Your task to perform on an android device: move a message to another label in the gmail app Image 0: 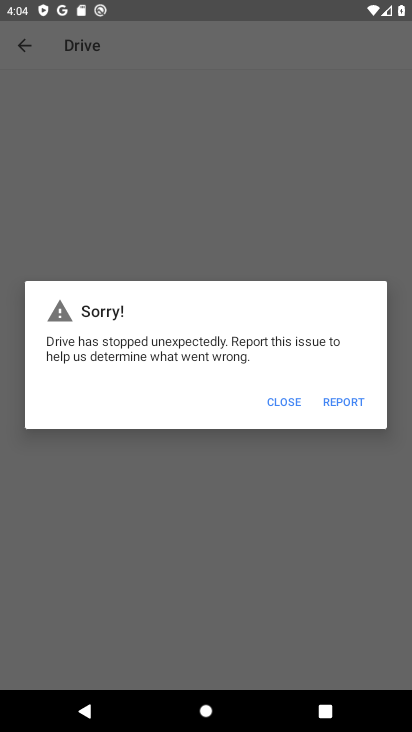
Step 0: press home button
Your task to perform on an android device: move a message to another label in the gmail app Image 1: 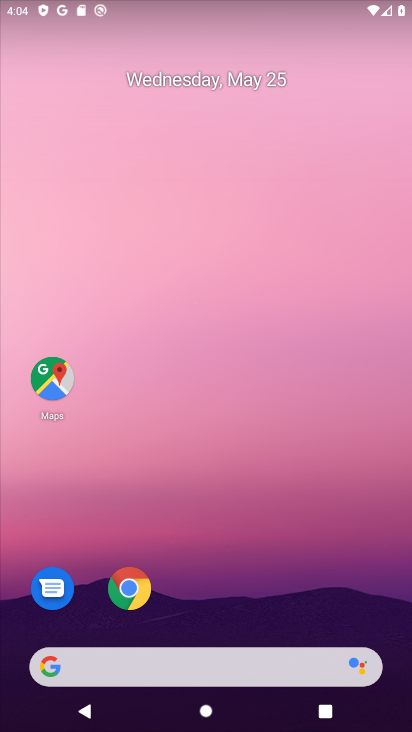
Step 1: drag from (210, 611) to (195, 20)
Your task to perform on an android device: move a message to another label in the gmail app Image 2: 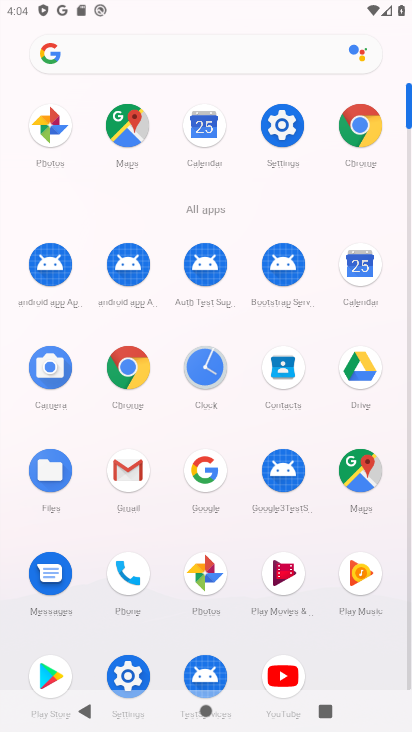
Step 2: click (120, 474)
Your task to perform on an android device: move a message to another label in the gmail app Image 3: 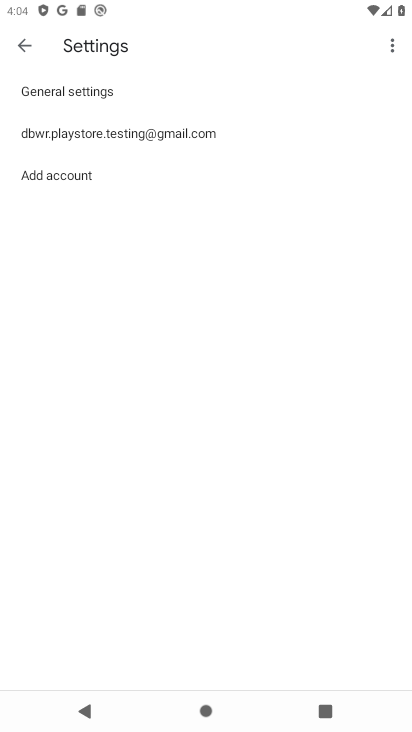
Step 3: press back button
Your task to perform on an android device: move a message to another label in the gmail app Image 4: 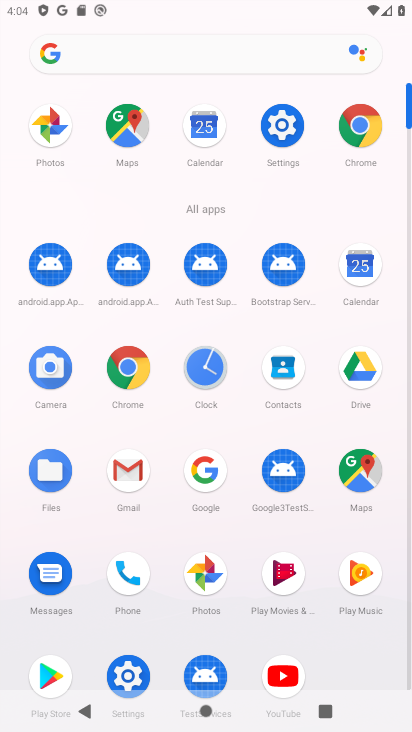
Step 4: click (137, 465)
Your task to perform on an android device: move a message to another label in the gmail app Image 5: 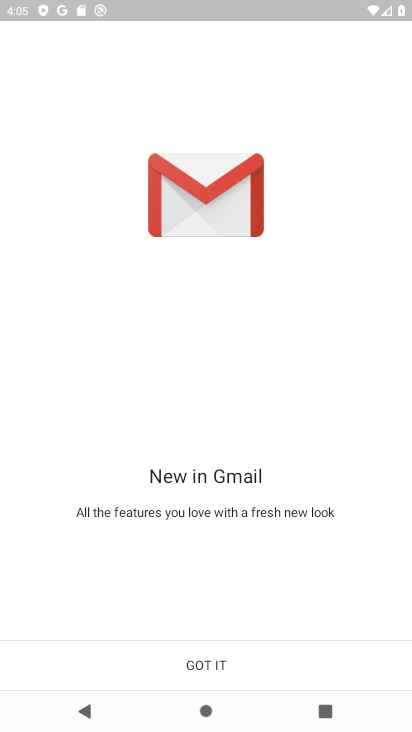
Step 5: click (209, 663)
Your task to perform on an android device: move a message to another label in the gmail app Image 6: 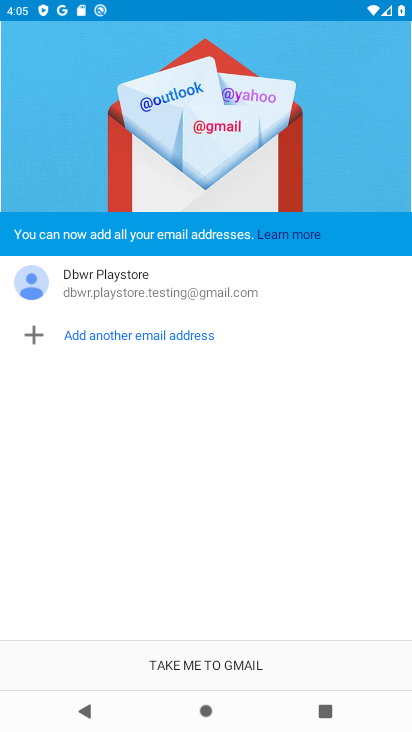
Step 6: click (209, 663)
Your task to perform on an android device: move a message to another label in the gmail app Image 7: 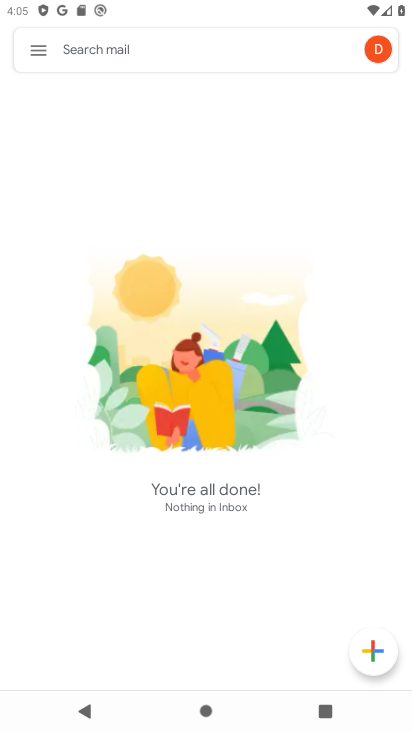
Step 7: task complete